Your task to perform on an android device: delete a single message in the gmail app Image 0: 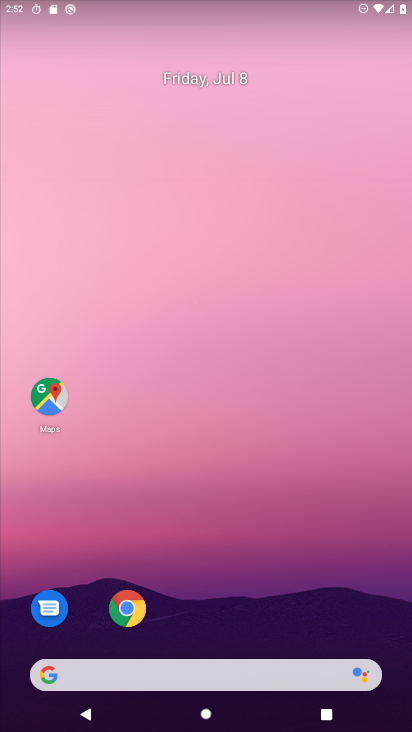
Step 0: click (248, 720)
Your task to perform on an android device: delete a single message in the gmail app Image 1: 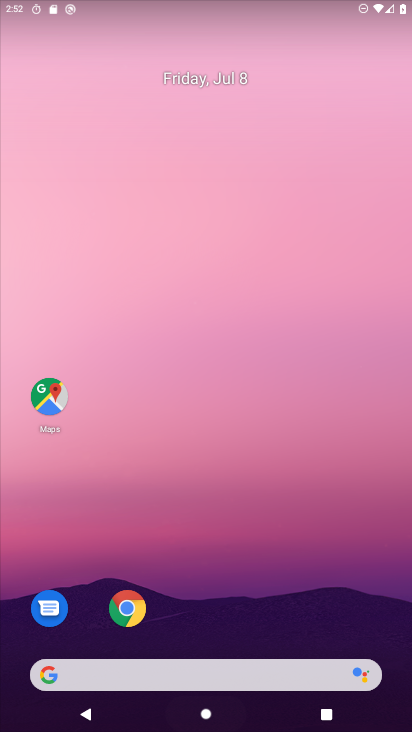
Step 1: click (243, 157)
Your task to perform on an android device: delete a single message in the gmail app Image 2: 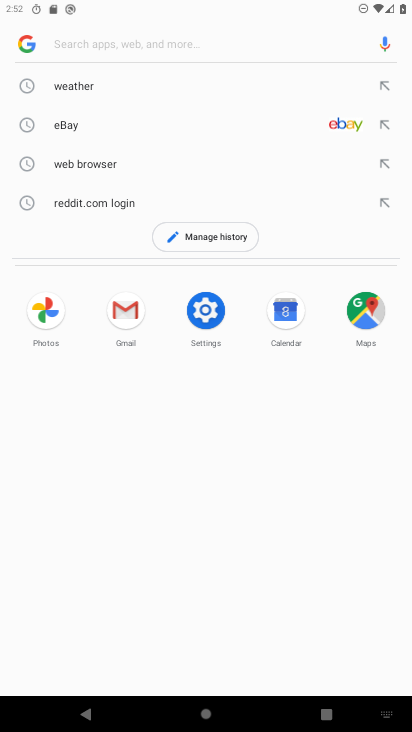
Step 2: press home button
Your task to perform on an android device: delete a single message in the gmail app Image 3: 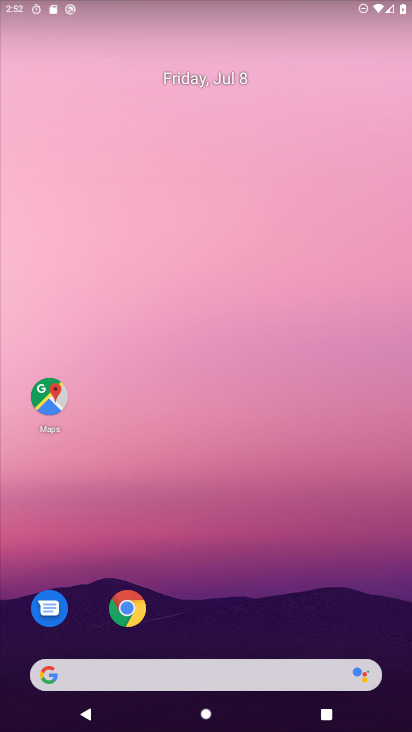
Step 3: drag from (256, 714) to (256, 553)
Your task to perform on an android device: delete a single message in the gmail app Image 4: 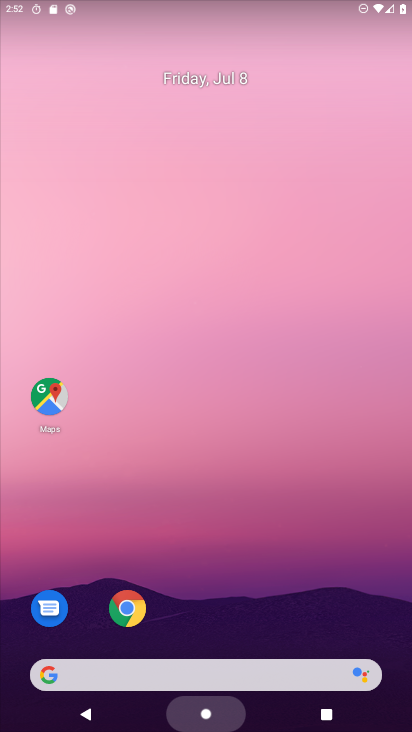
Step 4: click (263, 61)
Your task to perform on an android device: delete a single message in the gmail app Image 5: 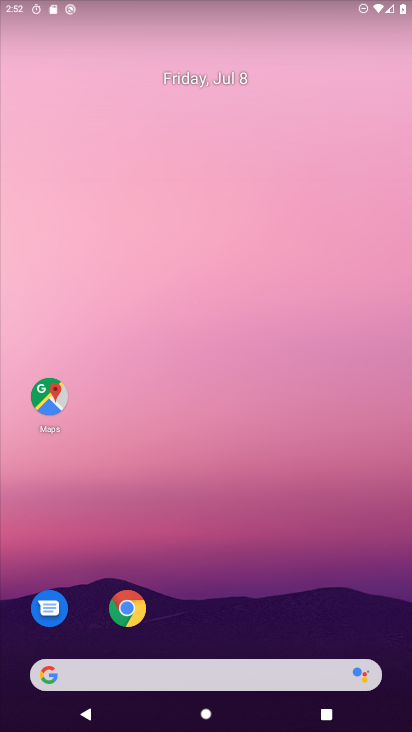
Step 5: drag from (237, 728) to (237, 681)
Your task to perform on an android device: delete a single message in the gmail app Image 6: 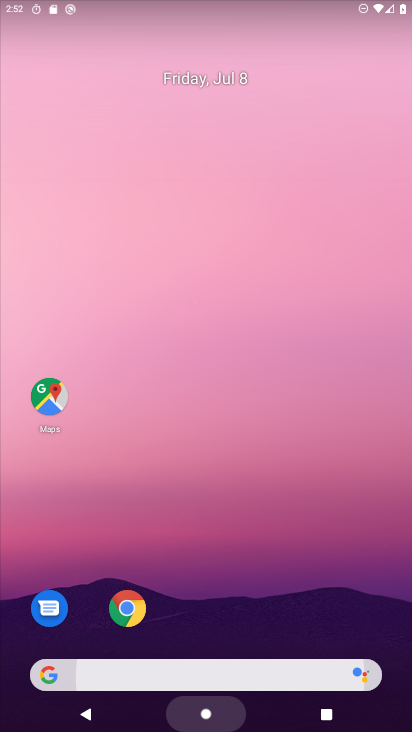
Step 6: drag from (237, 144) to (237, 44)
Your task to perform on an android device: delete a single message in the gmail app Image 7: 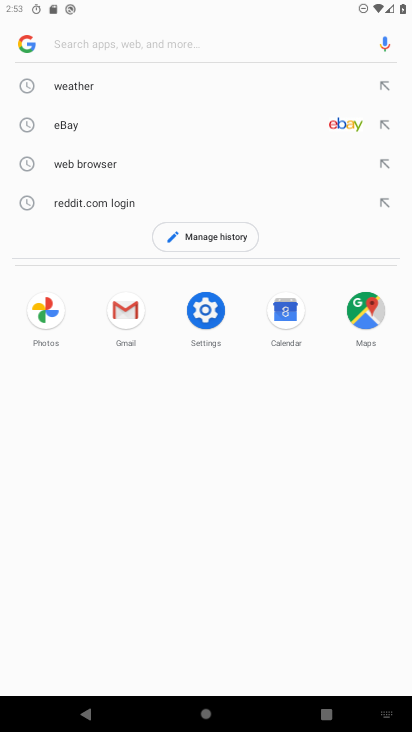
Step 7: press home button
Your task to perform on an android device: delete a single message in the gmail app Image 8: 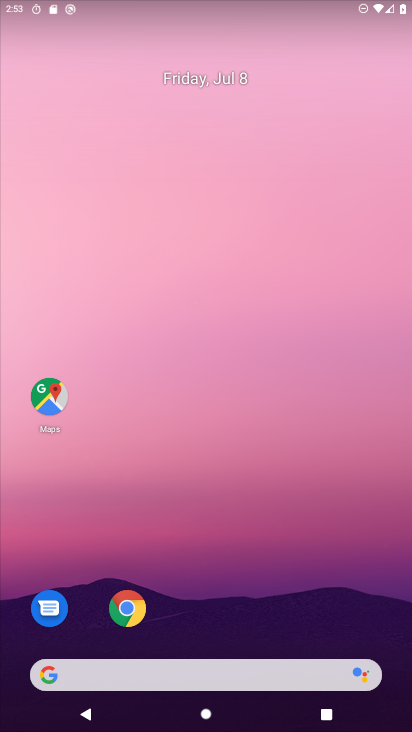
Step 8: drag from (237, 708) to (237, 551)
Your task to perform on an android device: delete a single message in the gmail app Image 9: 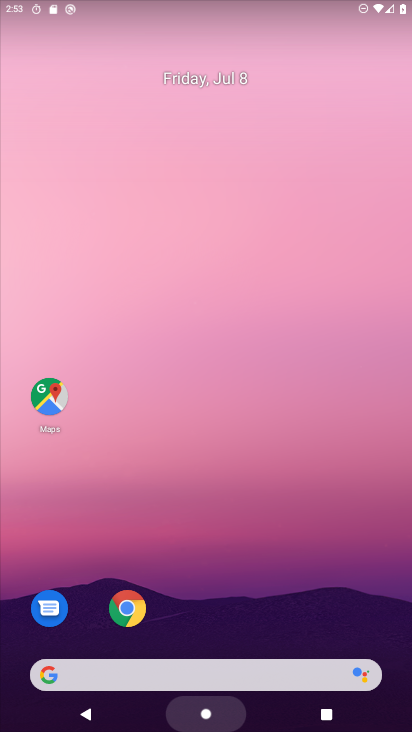
Step 9: drag from (237, 144) to (234, 73)
Your task to perform on an android device: delete a single message in the gmail app Image 10: 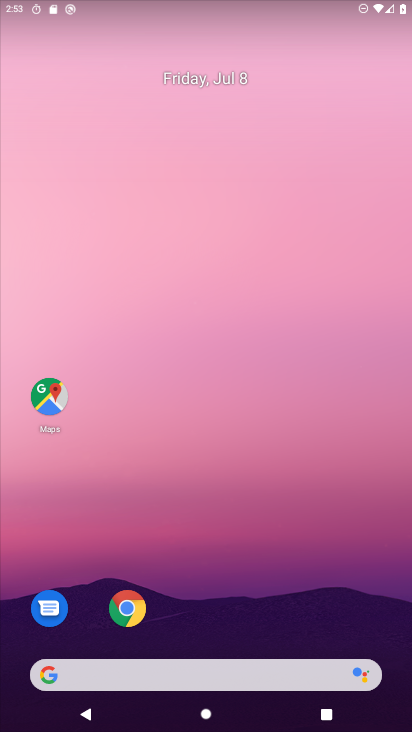
Step 10: drag from (245, 719) to (234, 104)
Your task to perform on an android device: delete a single message in the gmail app Image 11: 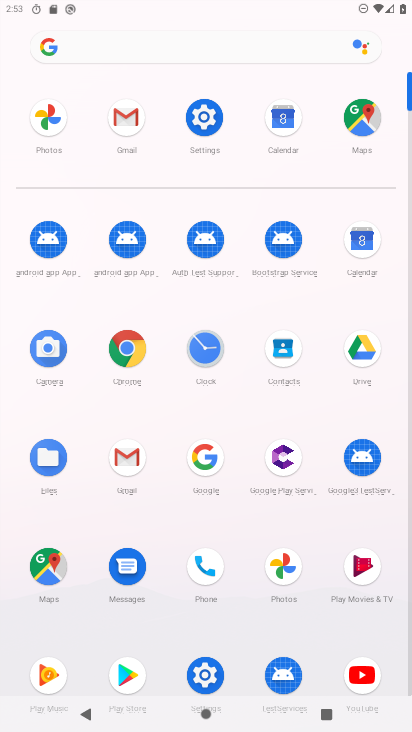
Step 11: click (116, 463)
Your task to perform on an android device: delete a single message in the gmail app Image 12: 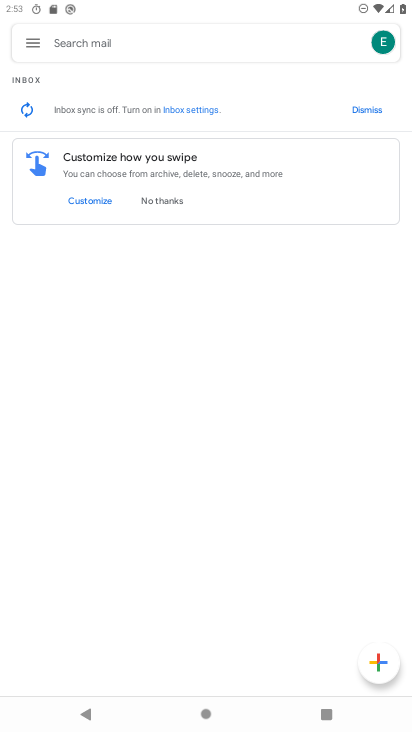
Step 12: task complete